Your task to perform on an android device: turn off airplane mode Image 0: 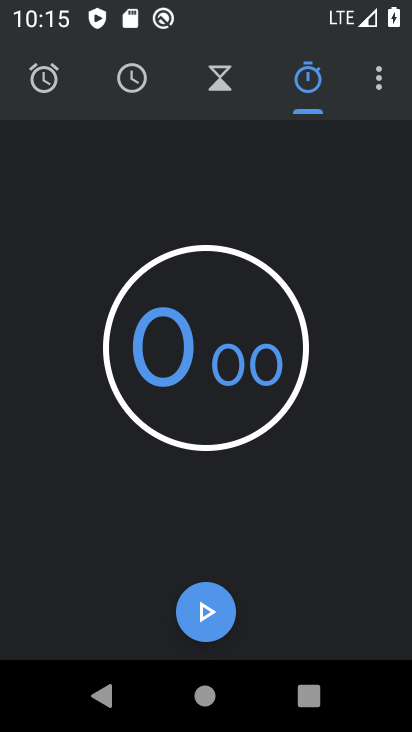
Step 0: press home button
Your task to perform on an android device: turn off airplane mode Image 1: 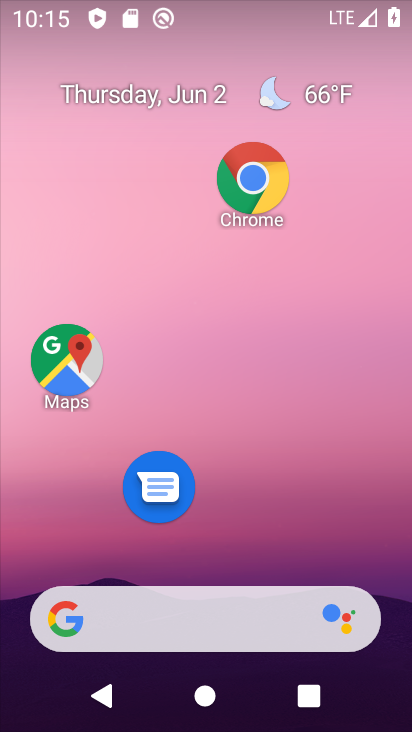
Step 1: drag from (234, 717) to (227, 39)
Your task to perform on an android device: turn off airplane mode Image 2: 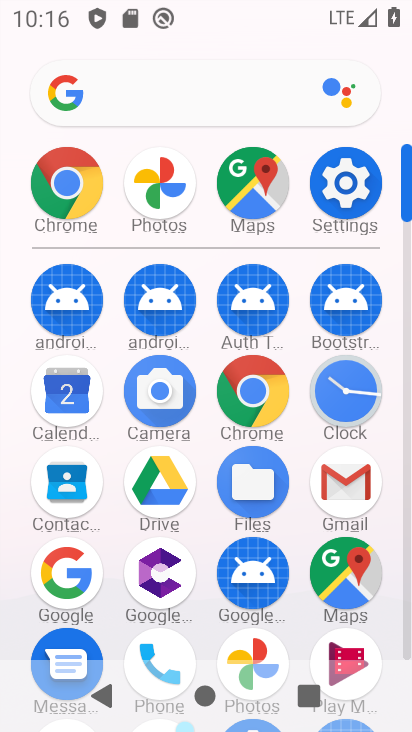
Step 2: click (343, 196)
Your task to perform on an android device: turn off airplane mode Image 3: 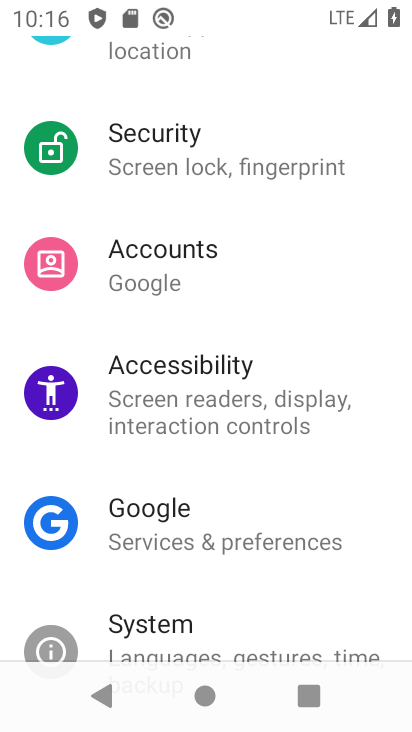
Step 3: drag from (280, 96) to (263, 401)
Your task to perform on an android device: turn off airplane mode Image 4: 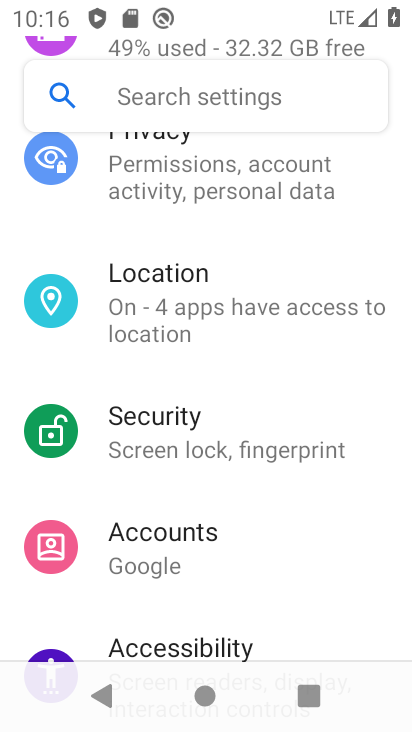
Step 4: drag from (241, 155) to (237, 547)
Your task to perform on an android device: turn off airplane mode Image 5: 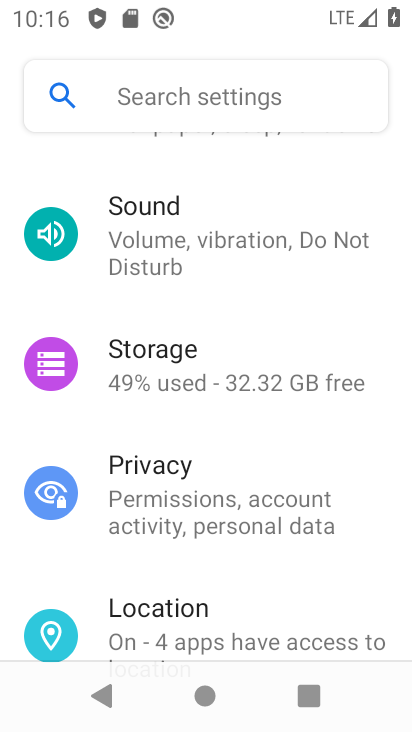
Step 5: drag from (256, 174) to (289, 630)
Your task to perform on an android device: turn off airplane mode Image 6: 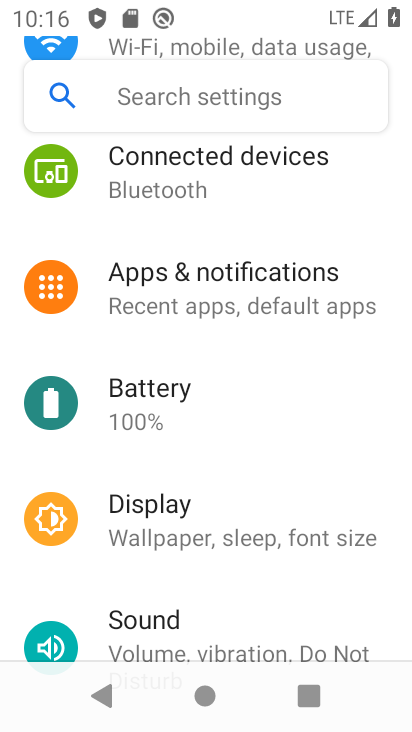
Step 6: drag from (253, 151) to (266, 534)
Your task to perform on an android device: turn off airplane mode Image 7: 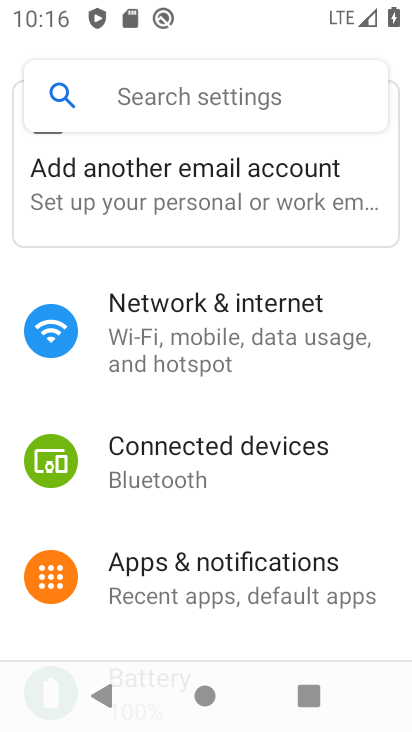
Step 7: click (194, 359)
Your task to perform on an android device: turn off airplane mode Image 8: 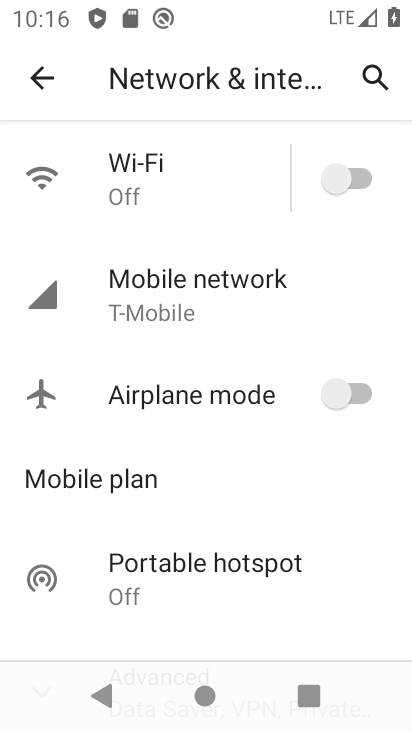
Step 8: task complete